Your task to perform on an android device: toggle sleep mode Image 0: 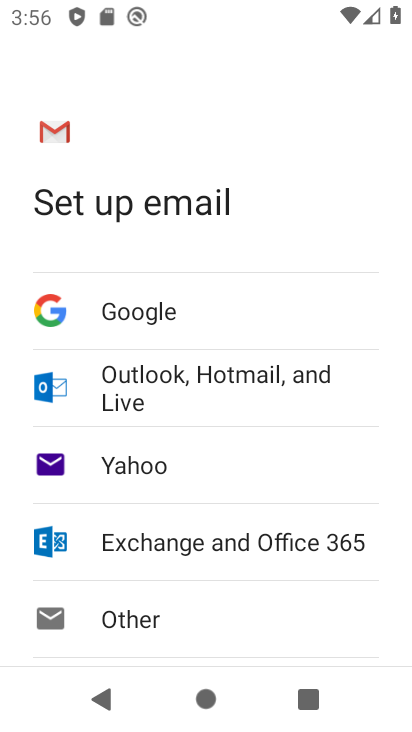
Step 0: press home button
Your task to perform on an android device: toggle sleep mode Image 1: 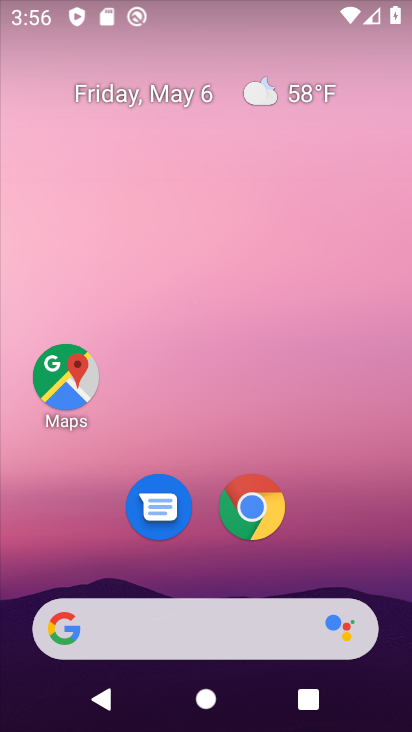
Step 1: drag from (380, 532) to (397, 47)
Your task to perform on an android device: toggle sleep mode Image 2: 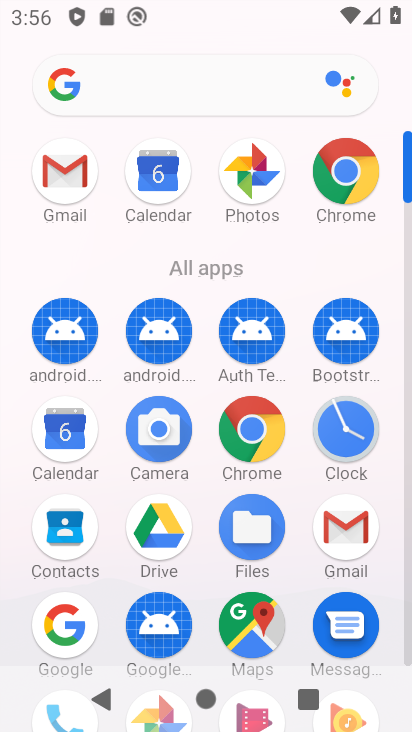
Step 2: click (412, 656)
Your task to perform on an android device: toggle sleep mode Image 3: 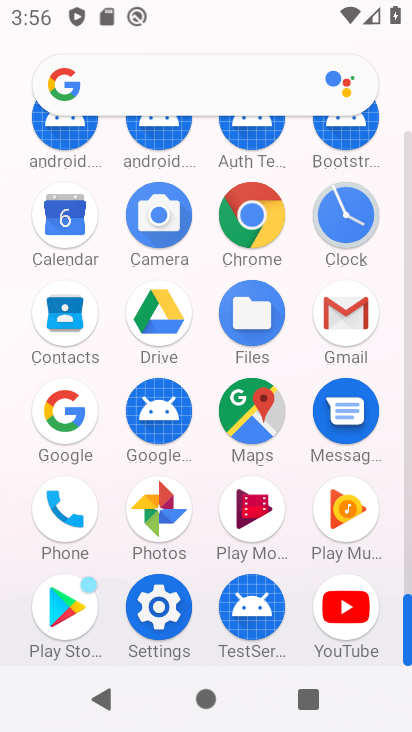
Step 3: click (160, 616)
Your task to perform on an android device: toggle sleep mode Image 4: 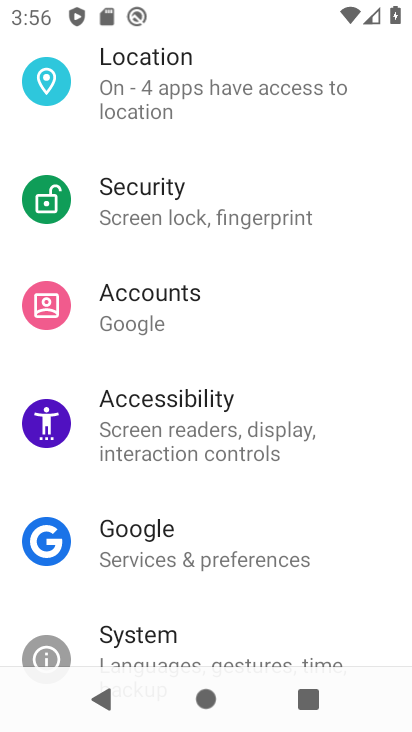
Step 4: drag from (304, 155) to (317, 619)
Your task to perform on an android device: toggle sleep mode Image 5: 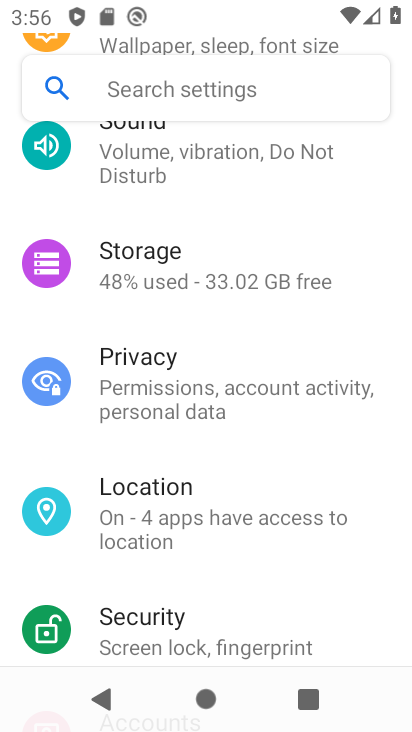
Step 5: drag from (282, 189) to (287, 601)
Your task to perform on an android device: toggle sleep mode Image 6: 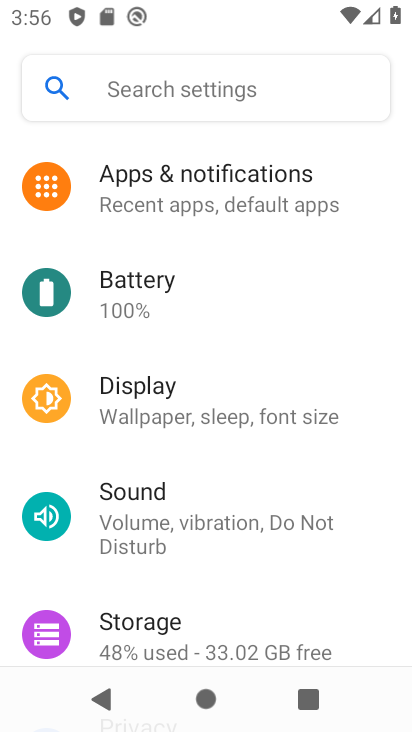
Step 6: drag from (226, 233) to (223, 603)
Your task to perform on an android device: toggle sleep mode Image 7: 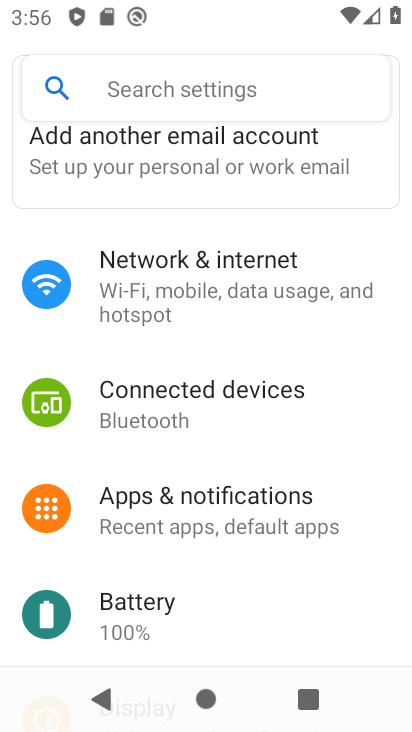
Step 7: drag from (223, 603) to (248, 291)
Your task to perform on an android device: toggle sleep mode Image 8: 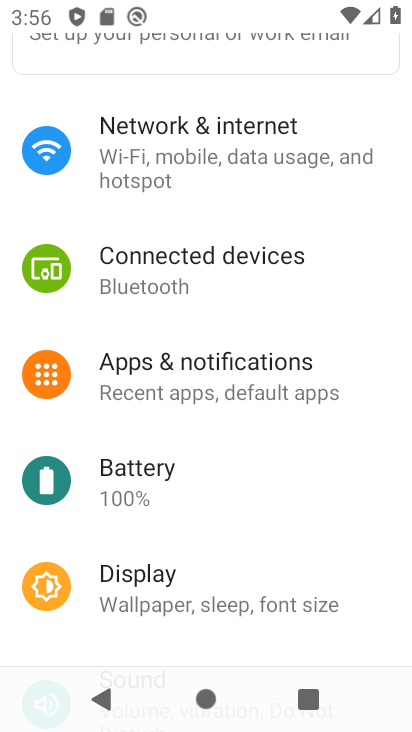
Step 8: click (287, 592)
Your task to perform on an android device: toggle sleep mode Image 9: 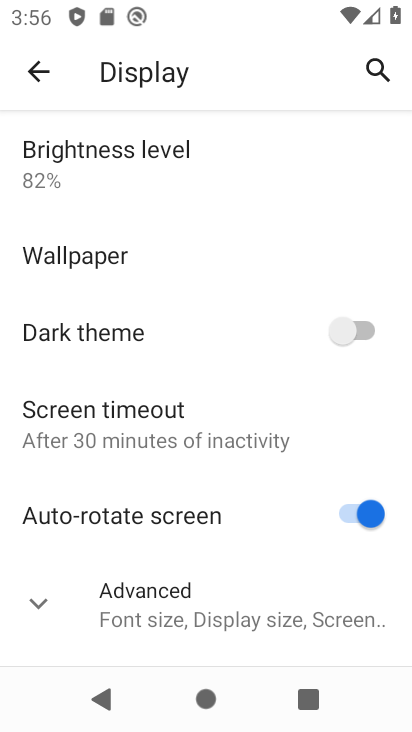
Step 9: click (232, 587)
Your task to perform on an android device: toggle sleep mode Image 10: 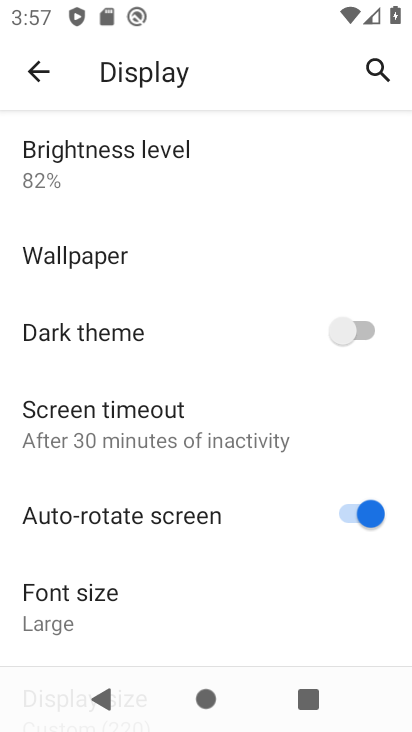
Step 10: task complete